Your task to perform on an android device: set default search engine in the chrome app Image 0: 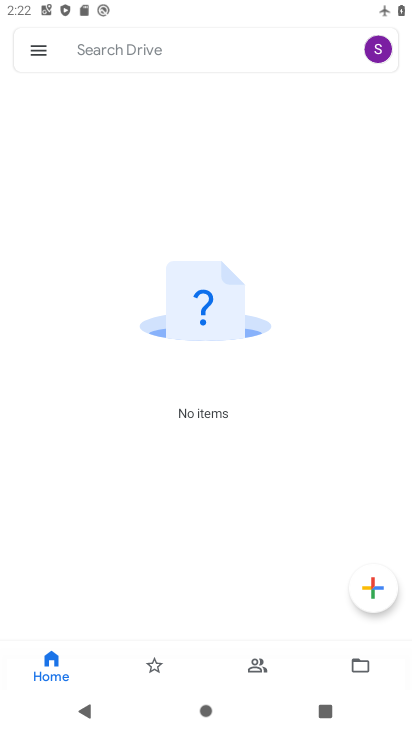
Step 0: drag from (224, 569) to (359, 240)
Your task to perform on an android device: set default search engine in the chrome app Image 1: 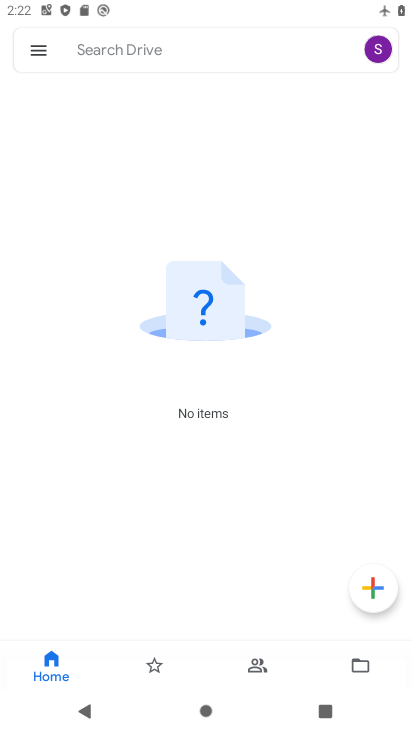
Step 1: press home button
Your task to perform on an android device: set default search engine in the chrome app Image 2: 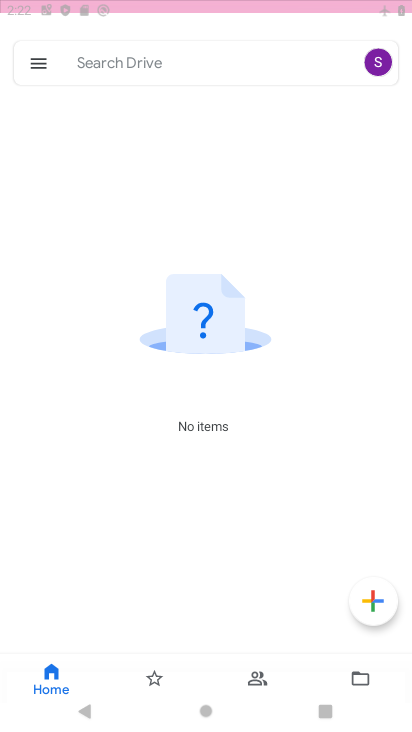
Step 2: drag from (255, 566) to (409, 33)
Your task to perform on an android device: set default search engine in the chrome app Image 3: 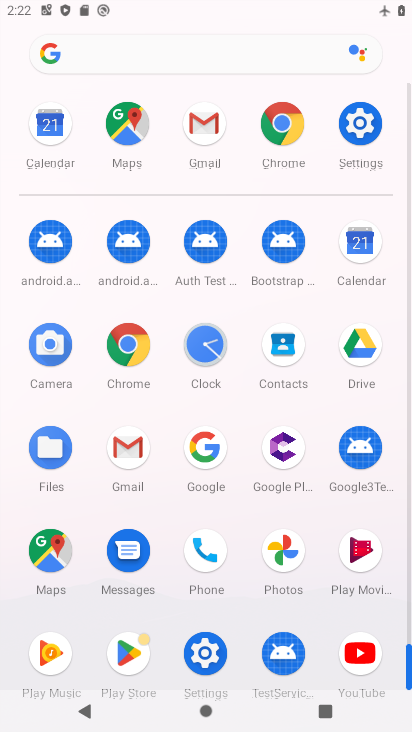
Step 3: drag from (231, 528) to (260, 173)
Your task to perform on an android device: set default search engine in the chrome app Image 4: 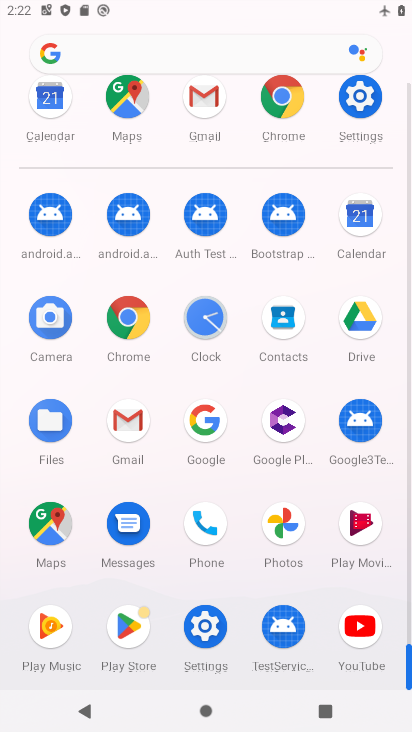
Step 4: click (126, 312)
Your task to perform on an android device: set default search engine in the chrome app Image 5: 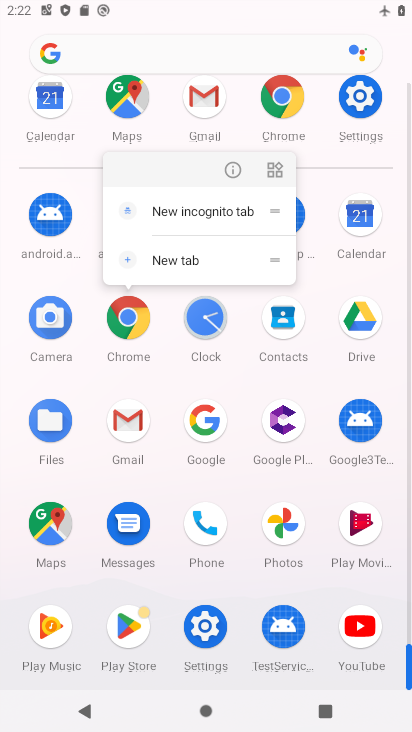
Step 5: click (240, 163)
Your task to perform on an android device: set default search engine in the chrome app Image 6: 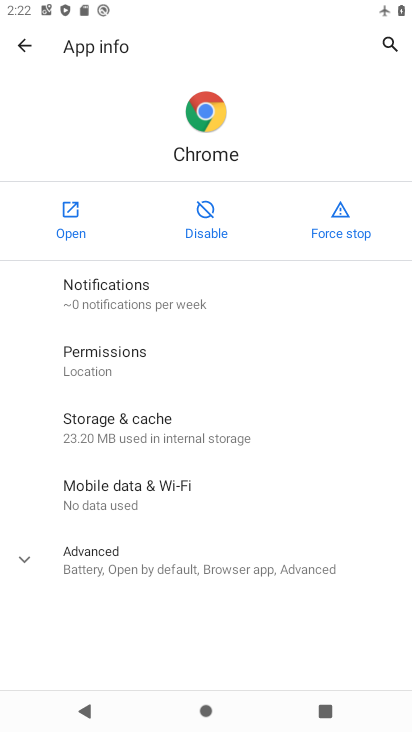
Step 6: click (77, 197)
Your task to perform on an android device: set default search engine in the chrome app Image 7: 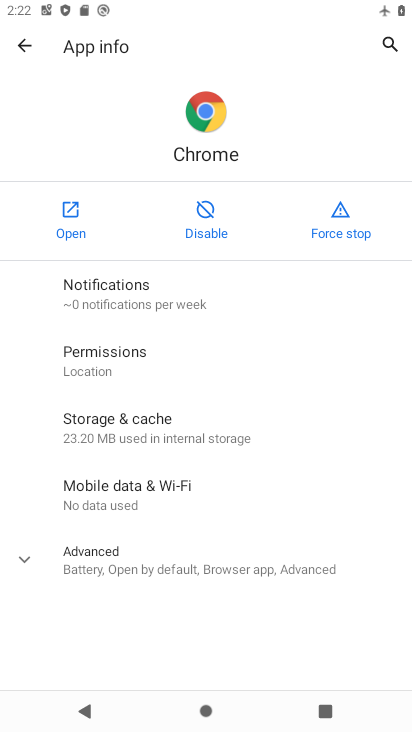
Step 7: click (77, 197)
Your task to perform on an android device: set default search engine in the chrome app Image 8: 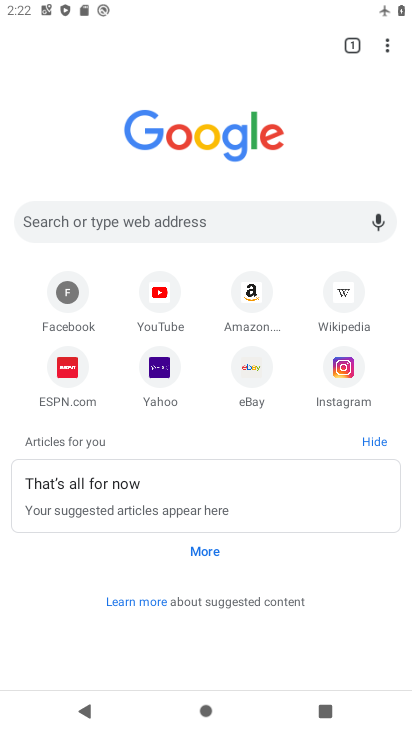
Step 8: drag from (217, 585) to (300, 192)
Your task to perform on an android device: set default search engine in the chrome app Image 9: 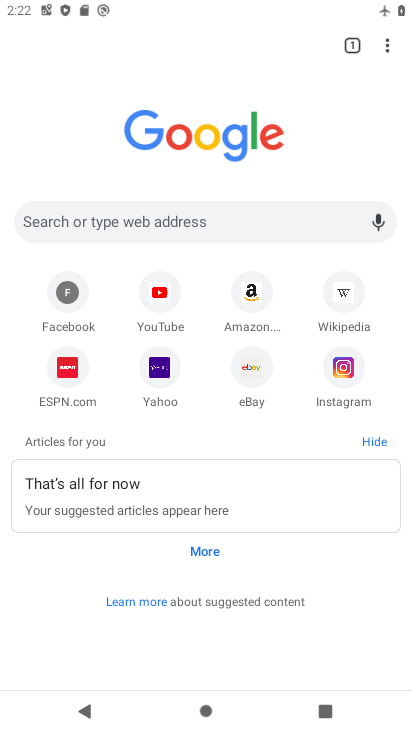
Step 9: drag from (241, 171) to (345, 591)
Your task to perform on an android device: set default search engine in the chrome app Image 10: 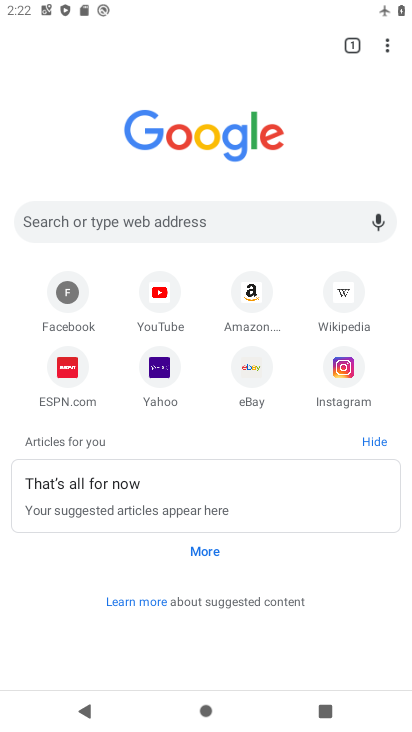
Step 10: drag from (278, 599) to (339, 251)
Your task to perform on an android device: set default search engine in the chrome app Image 11: 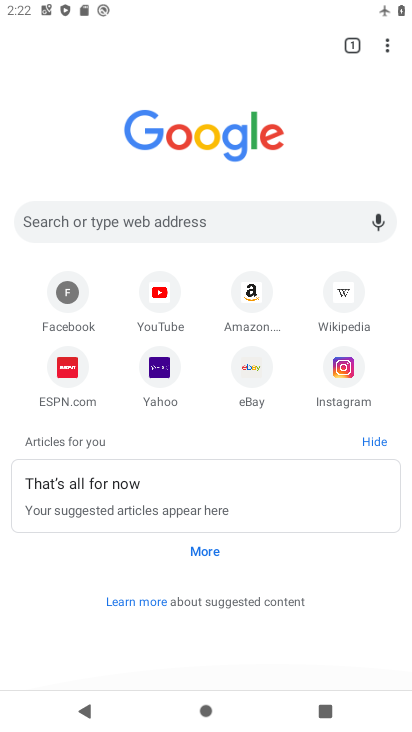
Step 11: drag from (297, 141) to (269, 611)
Your task to perform on an android device: set default search engine in the chrome app Image 12: 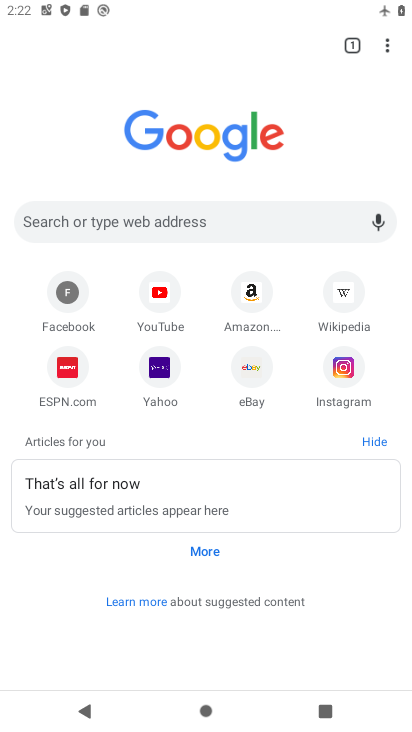
Step 12: drag from (292, 197) to (306, 657)
Your task to perform on an android device: set default search engine in the chrome app Image 13: 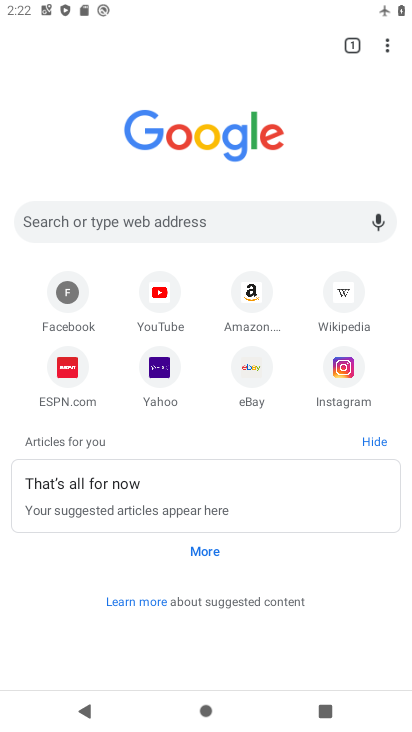
Step 13: drag from (252, 583) to (306, 239)
Your task to perform on an android device: set default search engine in the chrome app Image 14: 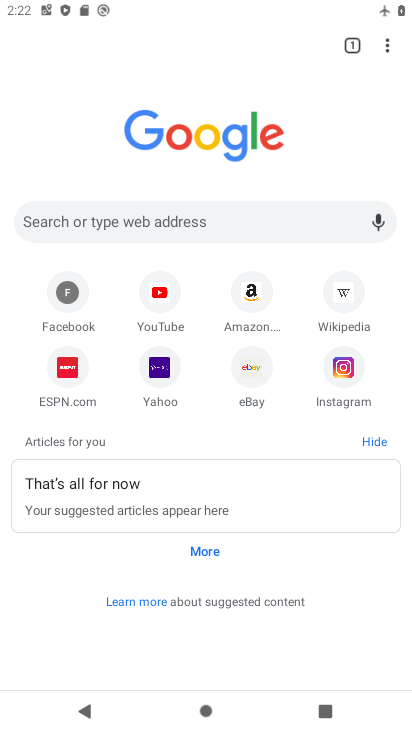
Step 14: drag from (381, 37) to (265, 423)
Your task to perform on an android device: set default search engine in the chrome app Image 15: 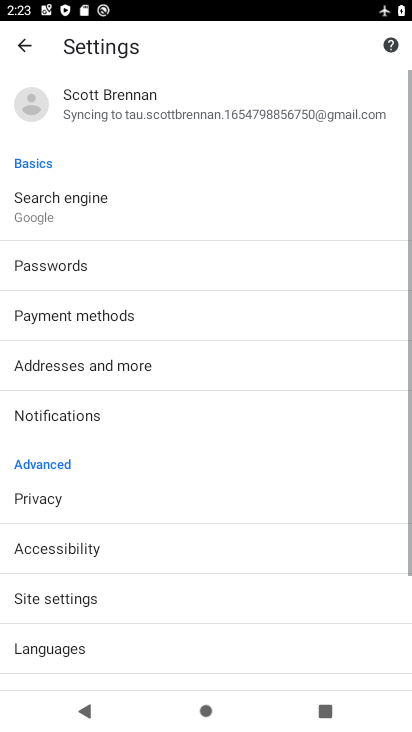
Step 15: click (68, 213)
Your task to perform on an android device: set default search engine in the chrome app Image 16: 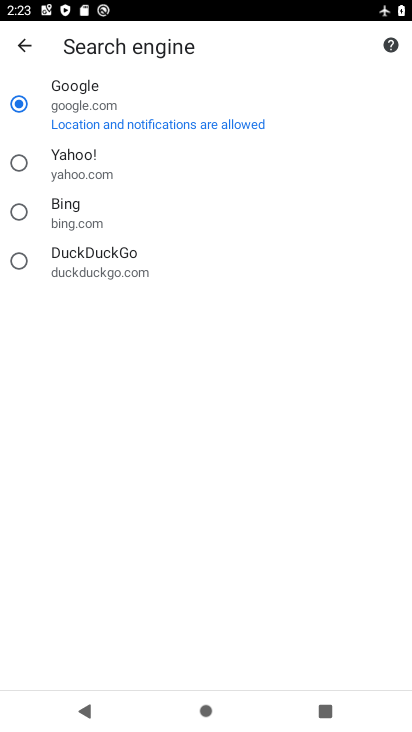
Step 16: drag from (219, 595) to (245, 159)
Your task to perform on an android device: set default search engine in the chrome app Image 17: 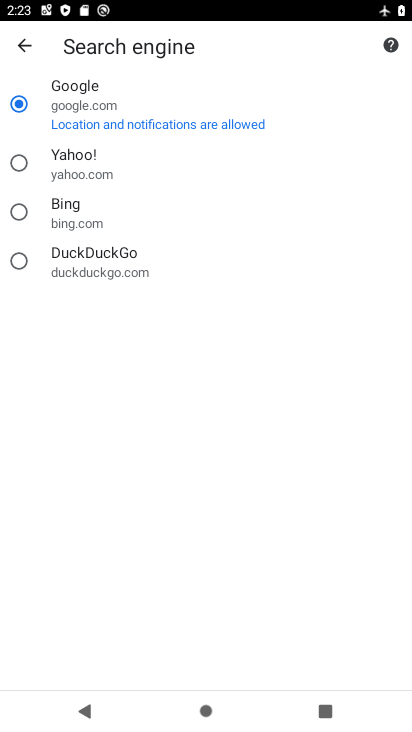
Step 17: click (89, 100)
Your task to perform on an android device: set default search engine in the chrome app Image 18: 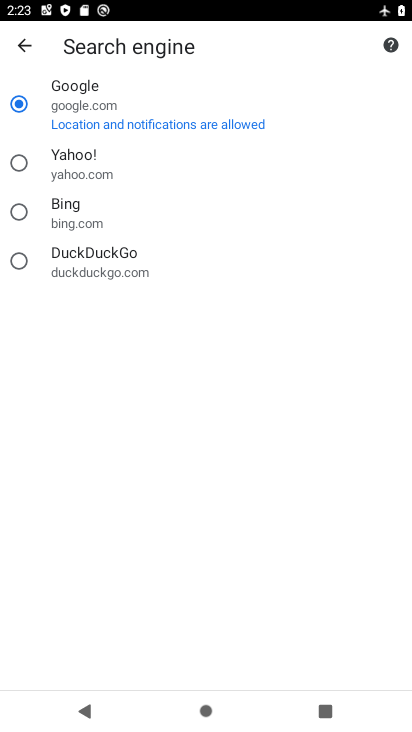
Step 18: task complete